Your task to perform on an android device: turn off airplane mode Image 0: 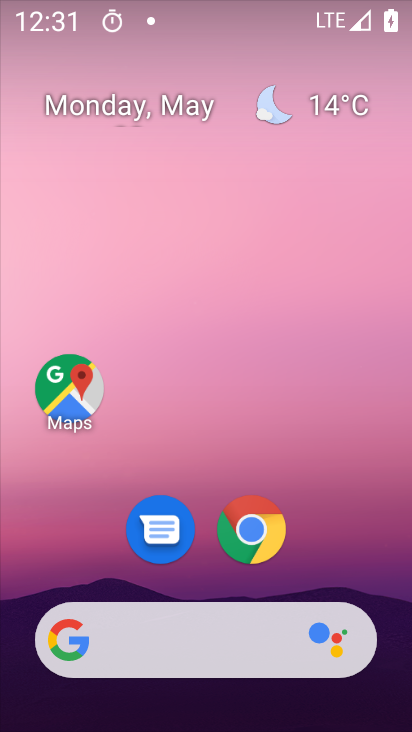
Step 0: drag from (362, 585) to (356, 176)
Your task to perform on an android device: turn off airplane mode Image 1: 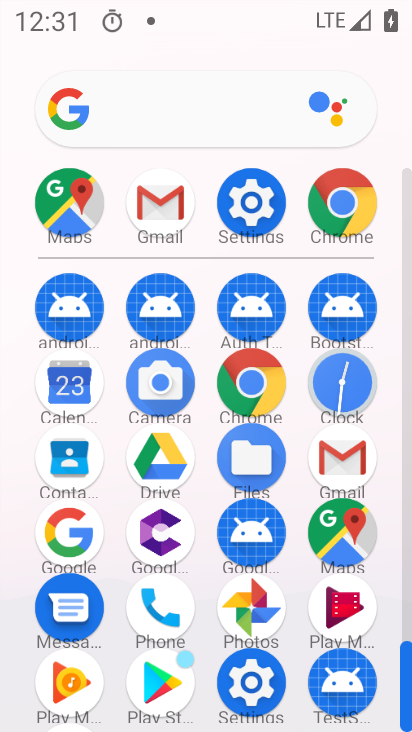
Step 1: click (257, 224)
Your task to perform on an android device: turn off airplane mode Image 2: 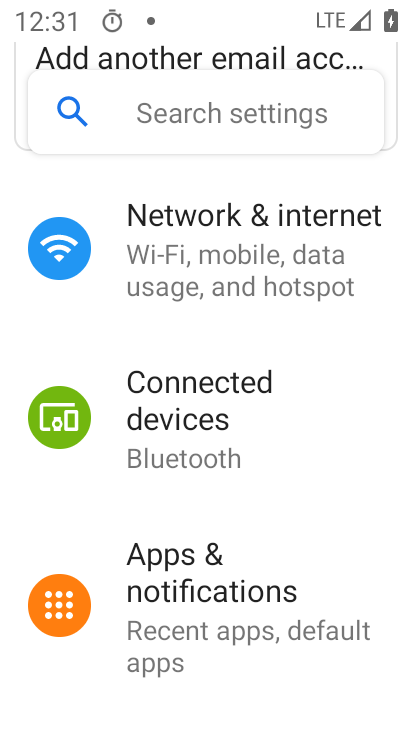
Step 2: drag from (348, 522) to (357, 419)
Your task to perform on an android device: turn off airplane mode Image 3: 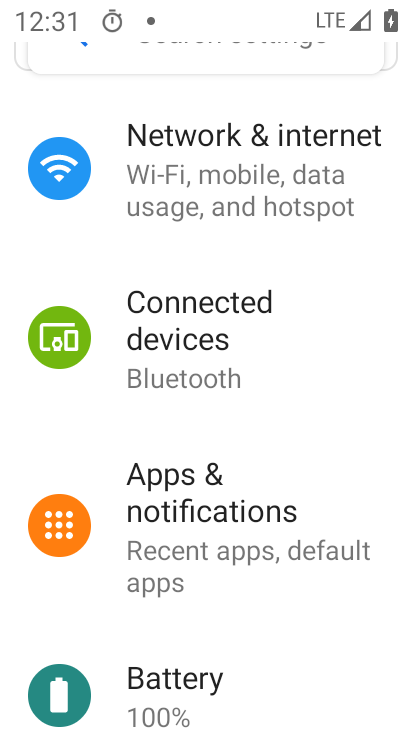
Step 3: drag from (352, 531) to (370, 413)
Your task to perform on an android device: turn off airplane mode Image 4: 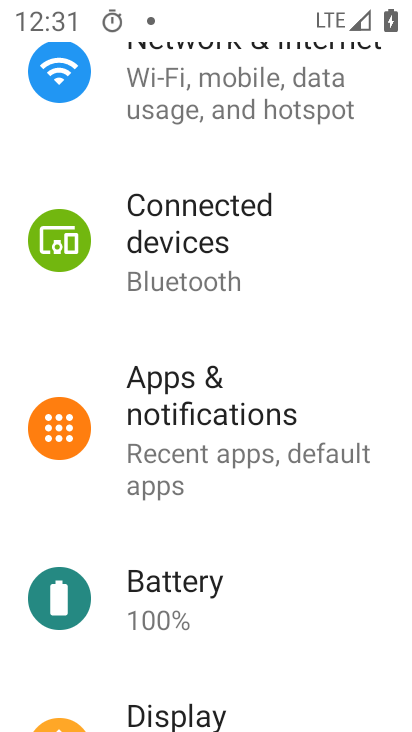
Step 4: drag from (351, 630) to (368, 519)
Your task to perform on an android device: turn off airplane mode Image 5: 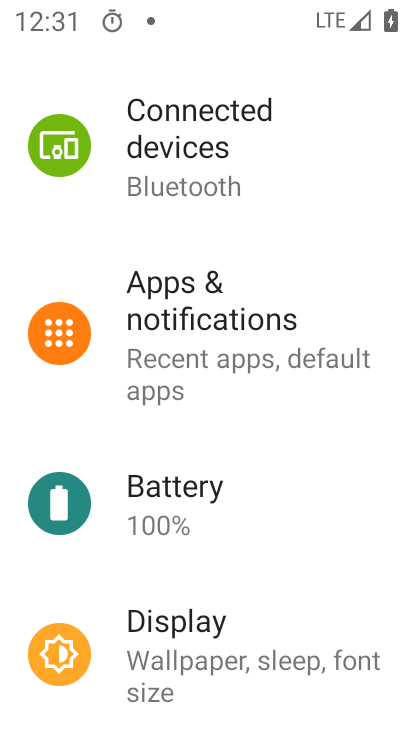
Step 5: drag from (360, 653) to (378, 555)
Your task to perform on an android device: turn off airplane mode Image 6: 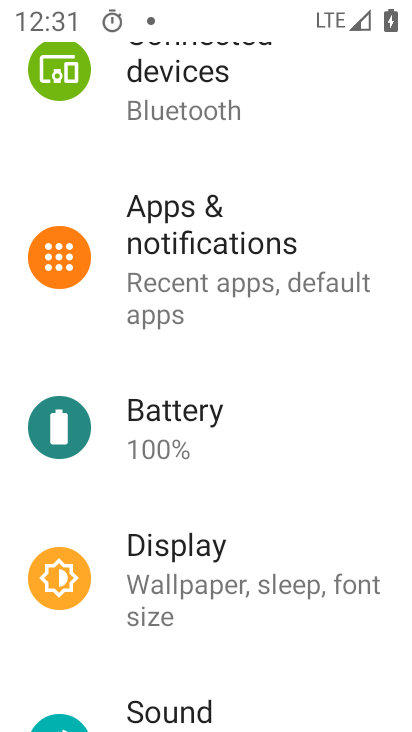
Step 6: drag from (363, 647) to (372, 577)
Your task to perform on an android device: turn off airplane mode Image 7: 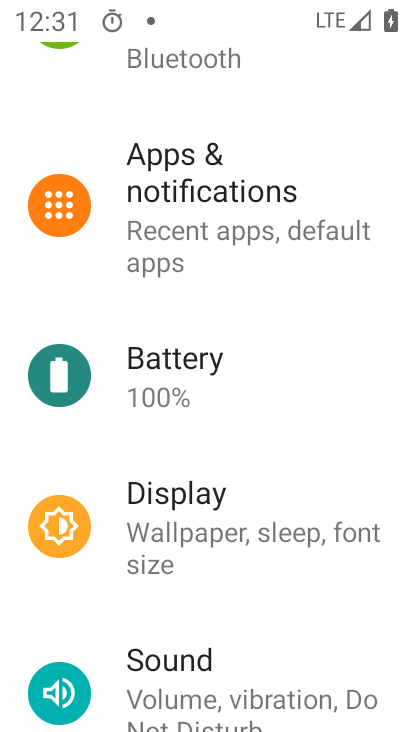
Step 7: drag from (358, 667) to (372, 585)
Your task to perform on an android device: turn off airplane mode Image 8: 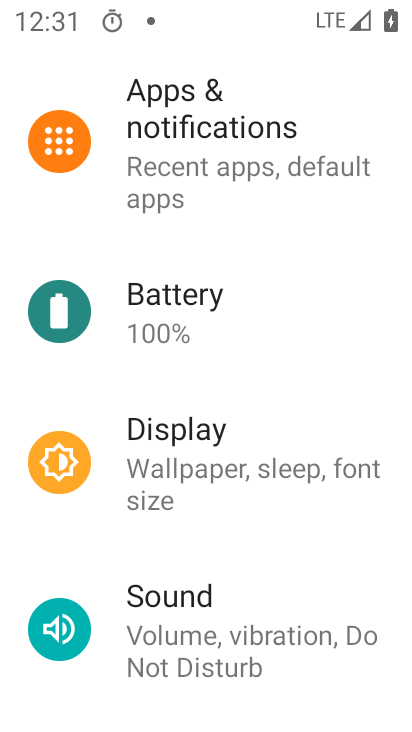
Step 8: drag from (338, 647) to (348, 529)
Your task to perform on an android device: turn off airplane mode Image 9: 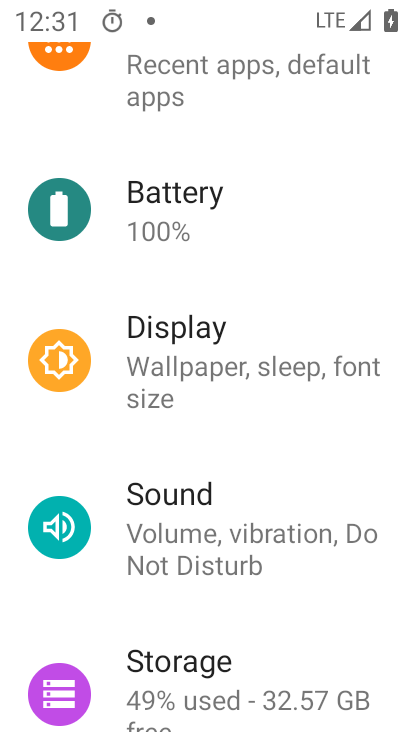
Step 9: drag from (351, 642) to (371, 520)
Your task to perform on an android device: turn off airplane mode Image 10: 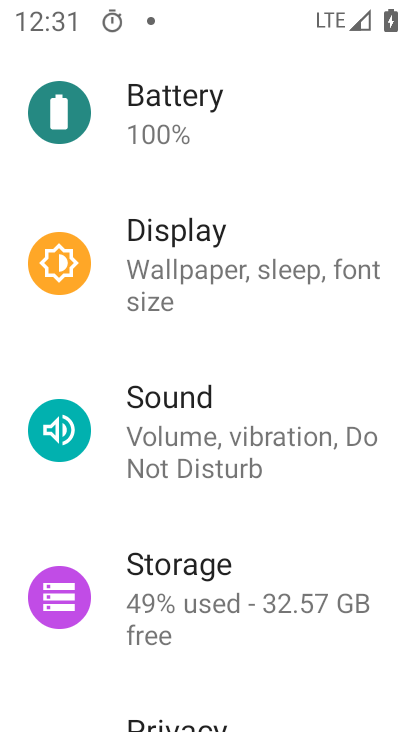
Step 10: drag from (356, 668) to (363, 539)
Your task to perform on an android device: turn off airplane mode Image 11: 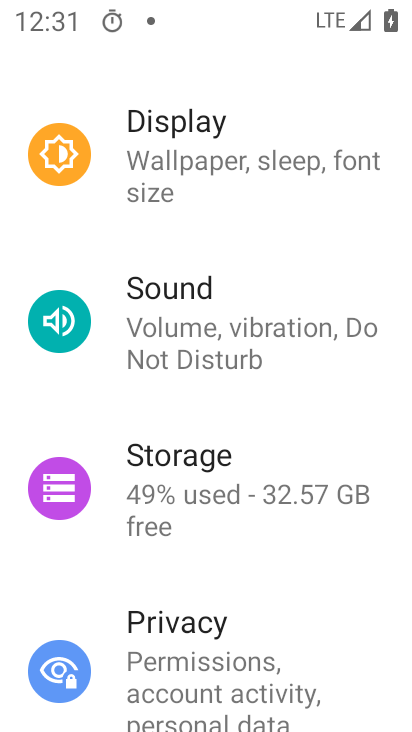
Step 11: drag from (339, 675) to (360, 554)
Your task to perform on an android device: turn off airplane mode Image 12: 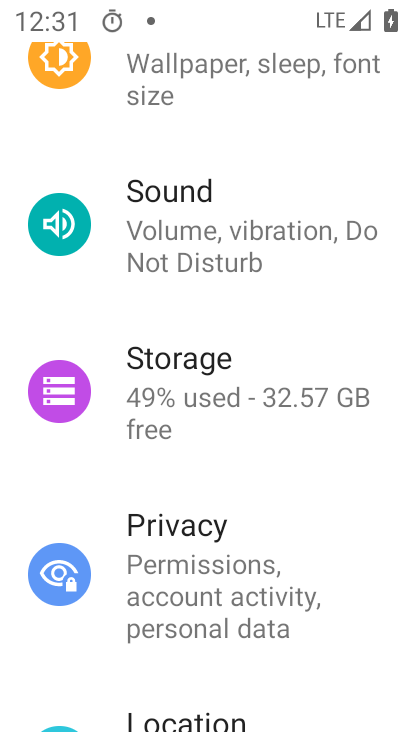
Step 12: drag from (370, 305) to (371, 385)
Your task to perform on an android device: turn off airplane mode Image 13: 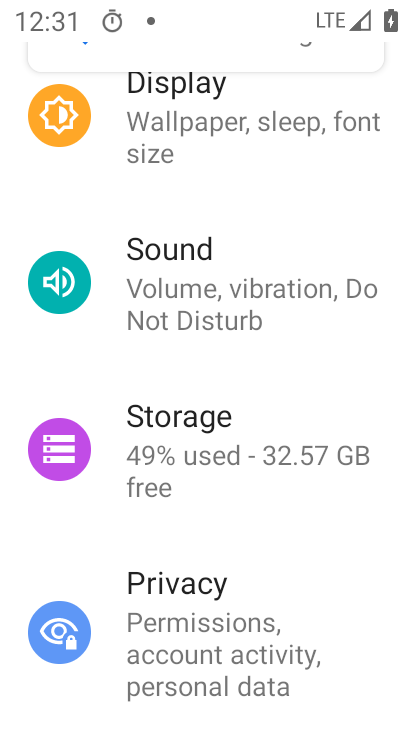
Step 13: drag from (369, 229) to (369, 333)
Your task to perform on an android device: turn off airplane mode Image 14: 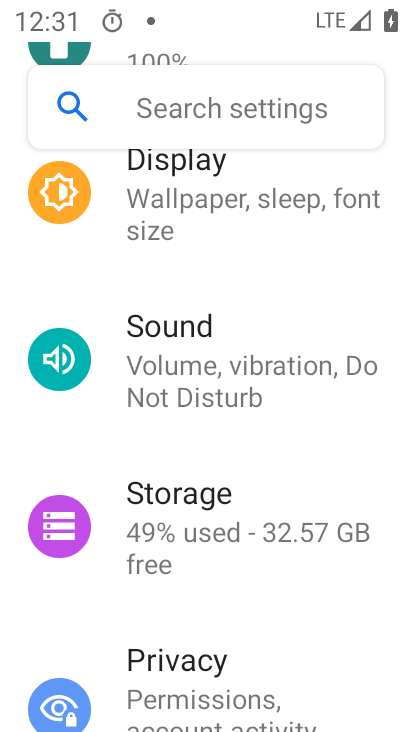
Step 14: drag from (391, 122) to (391, 248)
Your task to perform on an android device: turn off airplane mode Image 15: 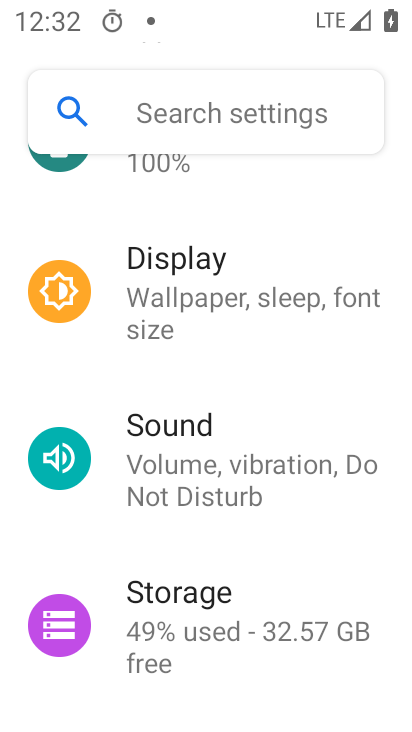
Step 15: drag from (396, 132) to (387, 288)
Your task to perform on an android device: turn off airplane mode Image 16: 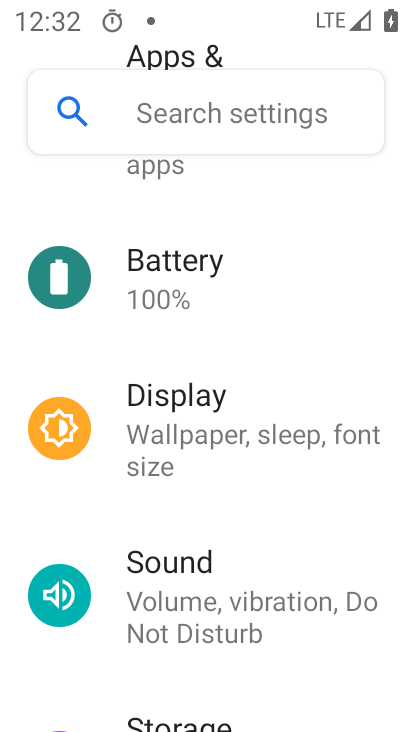
Step 16: drag from (369, 189) to (359, 298)
Your task to perform on an android device: turn off airplane mode Image 17: 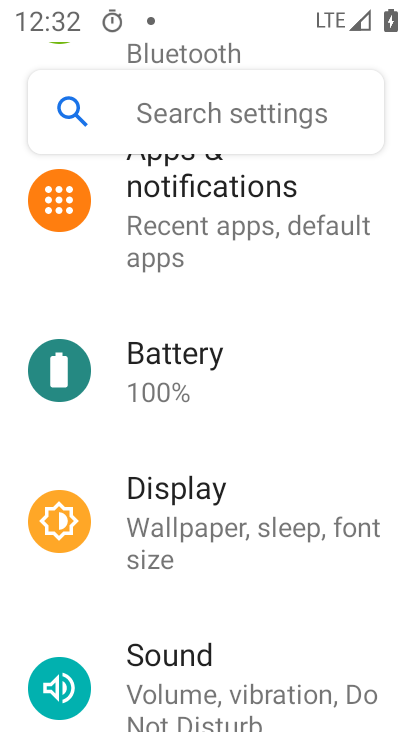
Step 17: drag from (374, 182) to (366, 286)
Your task to perform on an android device: turn off airplane mode Image 18: 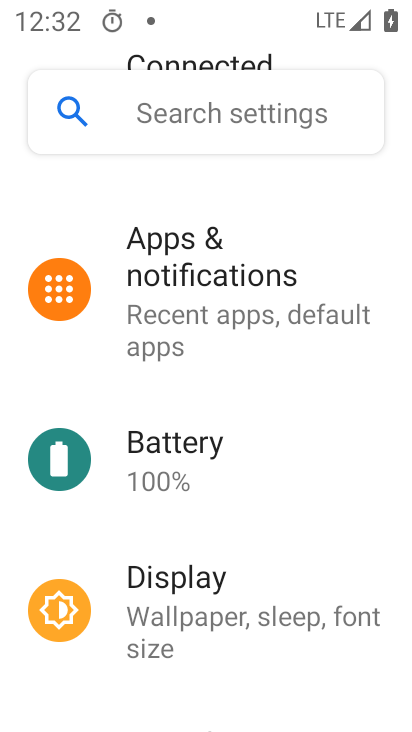
Step 18: drag from (329, 228) to (331, 341)
Your task to perform on an android device: turn off airplane mode Image 19: 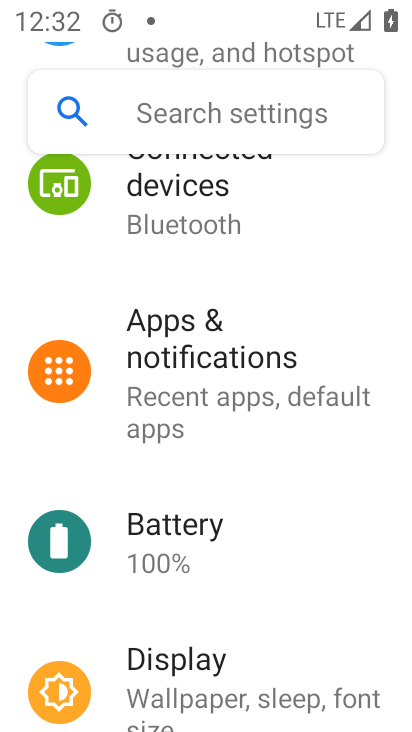
Step 19: drag from (321, 193) to (318, 312)
Your task to perform on an android device: turn off airplane mode Image 20: 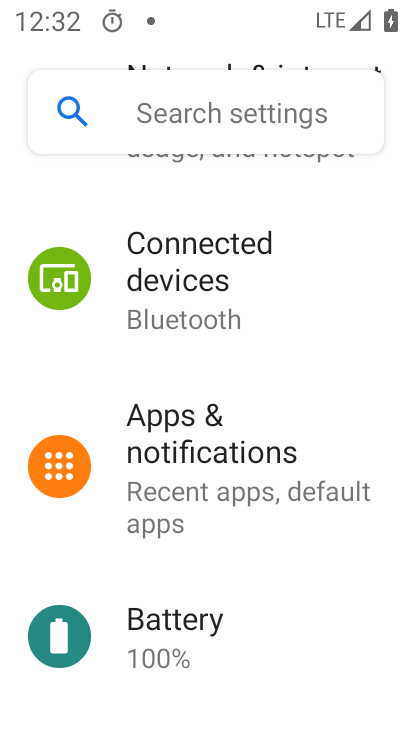
Step 20: drag from (336, 186) to (341, 314)
Your task to perform on an android device: turn off airplane mode Image 21: 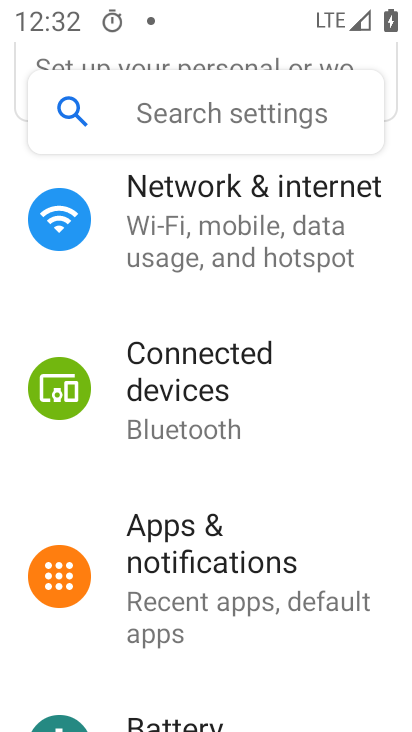
Step 21: drag from (347, 179) to (328, 315)
Your task to perform on an android device: turn off airplane mode Image 22: 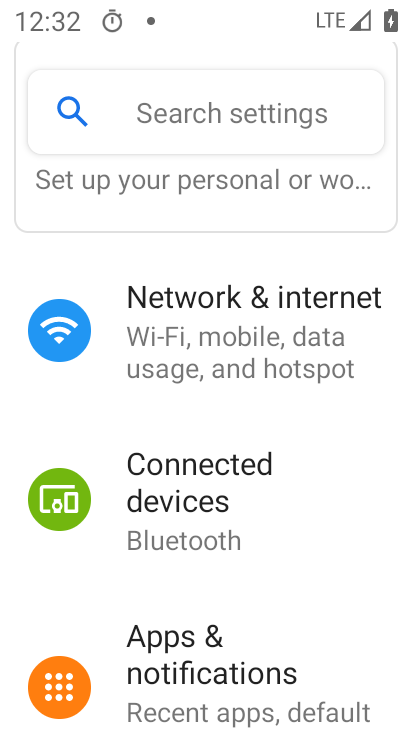
Step 22: drag from (345, 204) to (335, 374)
Your task to perform on an android device: turn off airplane mode Image 23: 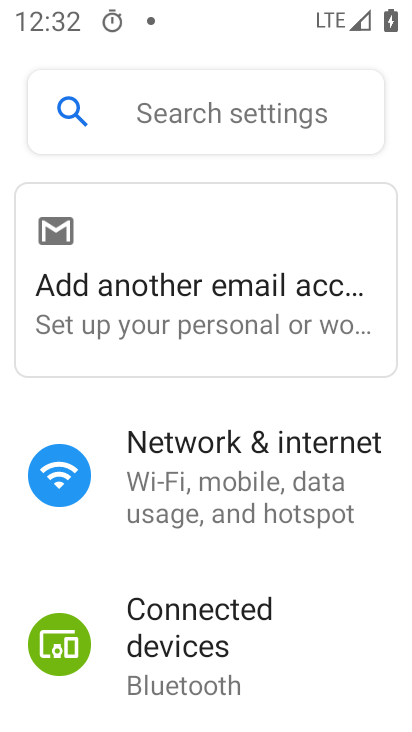
Step 23: click (303, 479)
Your task to perform on an android device: turn off airplane mode Image 24: 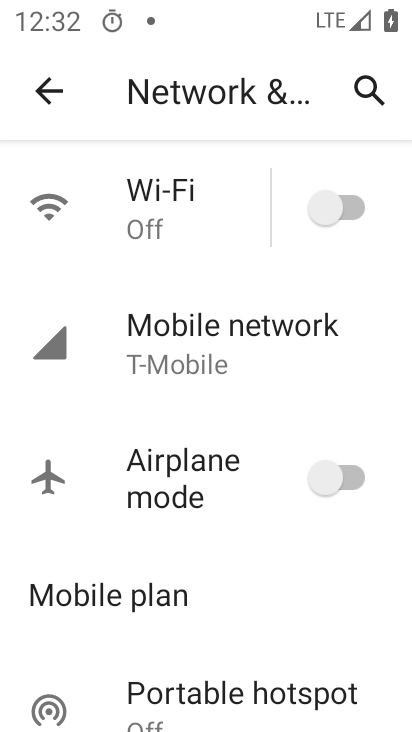
Step 24: task complete